Your task to perform on an android device: visit the assistant section in the google photos Image 0: 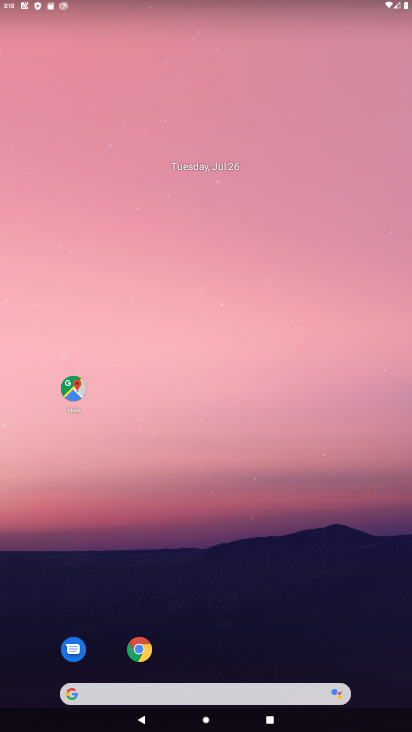
Step 0: drag from (197, 645) to (257, 93)
Your task to perform on an android device: visit the assistant section in the google photos Image 1: 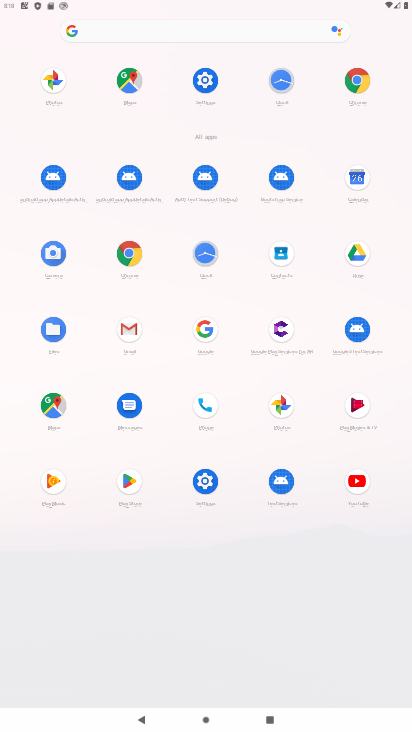
Step 1: click (52, 89)
Your task to perform on an android device: visit the assistant section in the google photos Image 2: 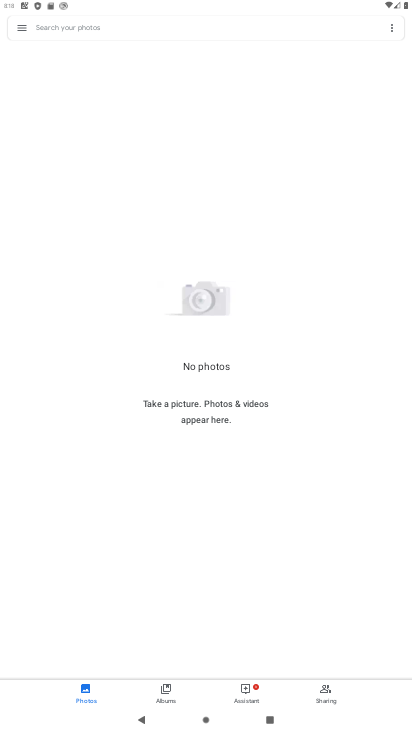
Step 2: click (241, 698)
Your task to perform on an android device: visit the assistant section in the google photos Image 3: 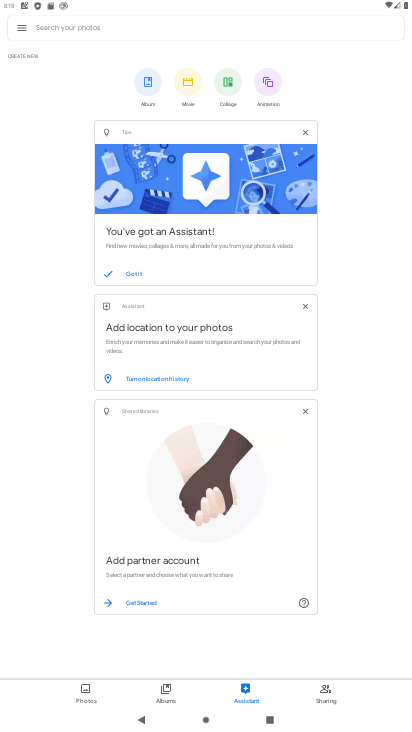
Step 3: task complete